Your task to perform on an android device: turn on bluetooth scan Image 0: 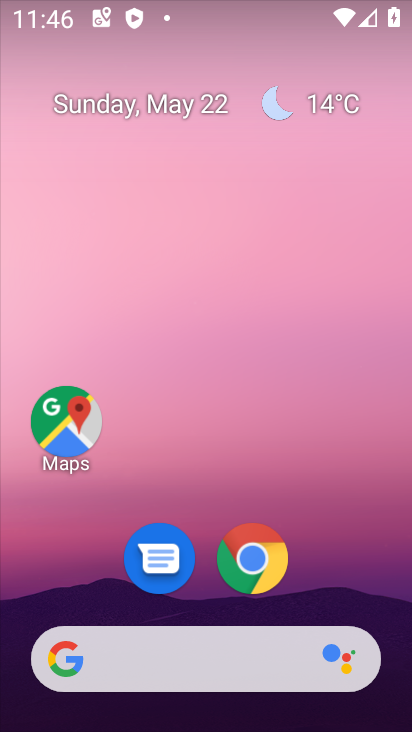
Step 0: drag from (358, 569) to (371, 19)
Your task to perform on an android device: turn on bluetooth scan Image 1: 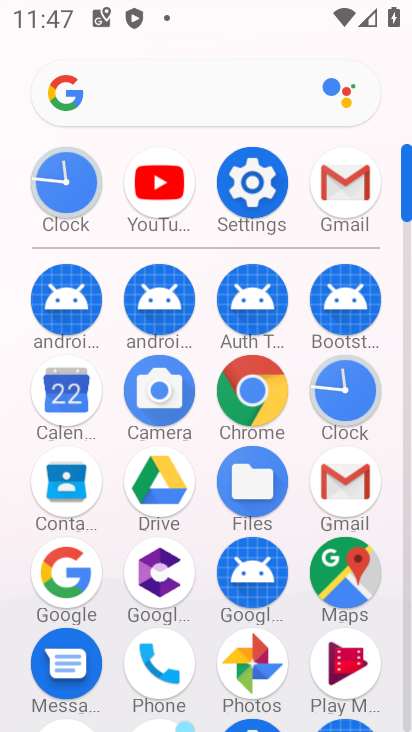
Step 1: click (250, 193)
Your task to perform on an android device: turn on bluetooth scan Image 2: 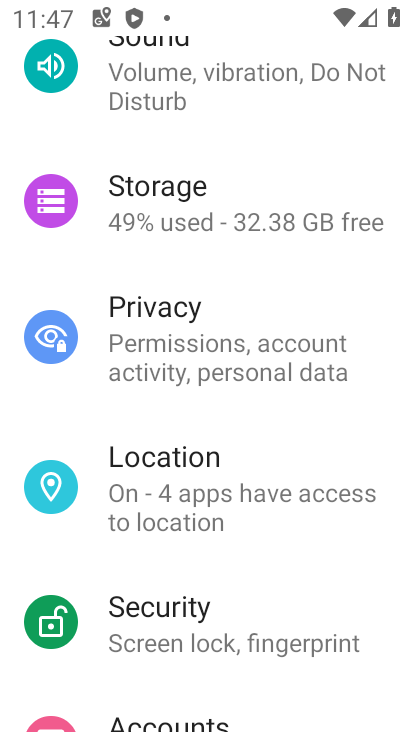
Step 2: click (157, 486)
Your task to perform on an android device: turn on bluetooth scan Image 3: 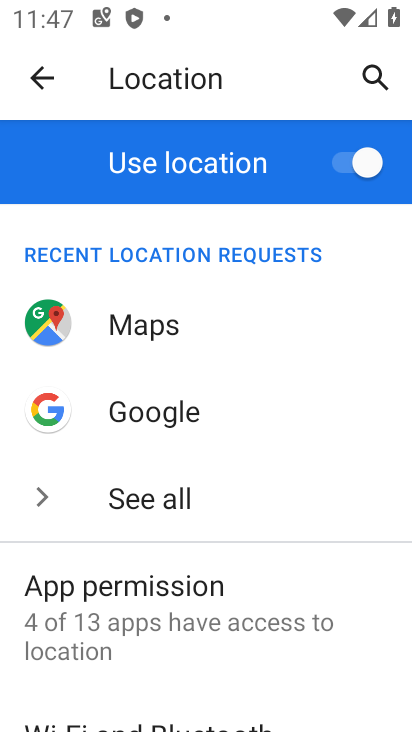
Step 3: drag from (219, 535) to (231, 106)
Your task to perform on an android device: turn on bluetooth scan Image 4: 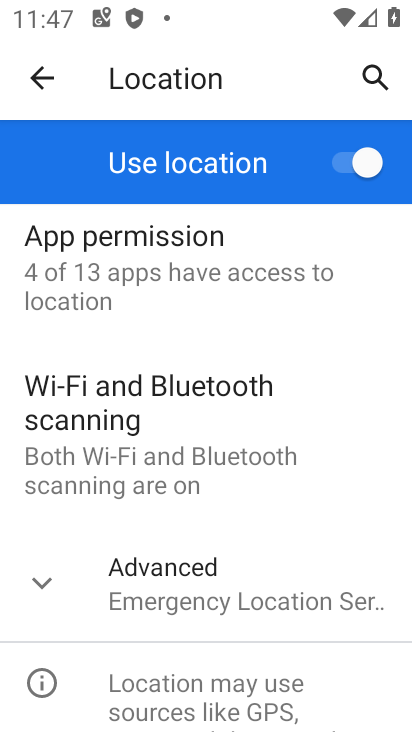
Step 4: click (88, 445)
Your task to perform on an android device: turn on bluetooth scan Image 5: 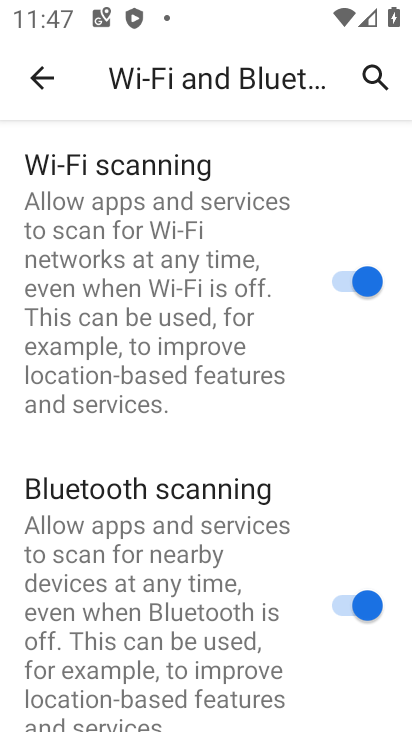
Step 5: task complete